Your task to perform on an android device: Show me productivity apps on the Play Store Image 0: 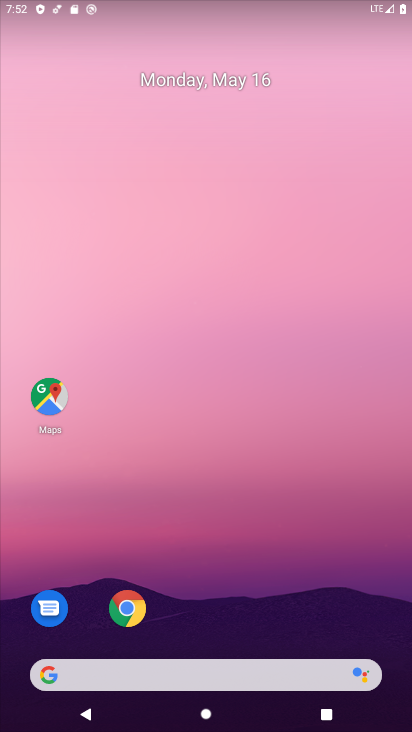
Step 0: drag from (232, 571) to (203, 78)
Your task to perform on an android device: Show me productivity apps on the Play Store Image 1: 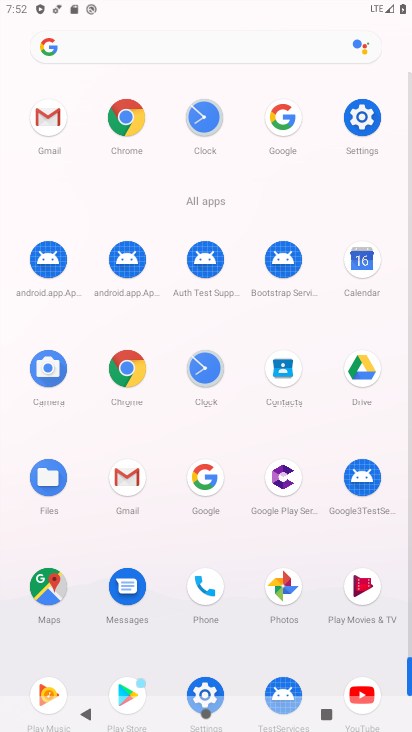
Step 1: drag from (175, 482) to (168, 292)
Your task to perform on an android device: Show me productivity apps on the Play Store Image 2: 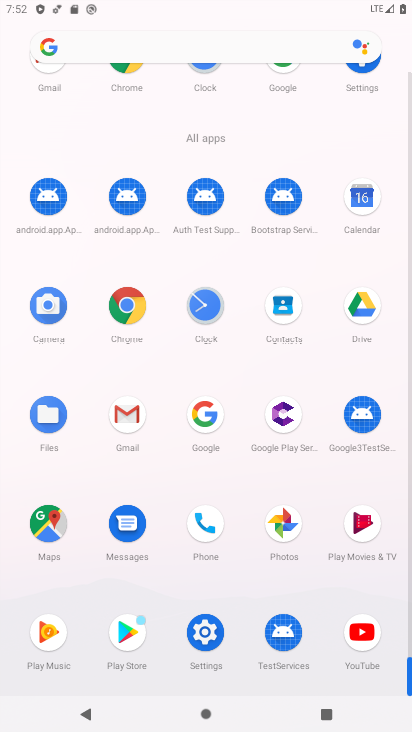
Step 2: click (131, 634)
Your task to perform on an android device: Show me productivity apps on the Play Store Image 3: 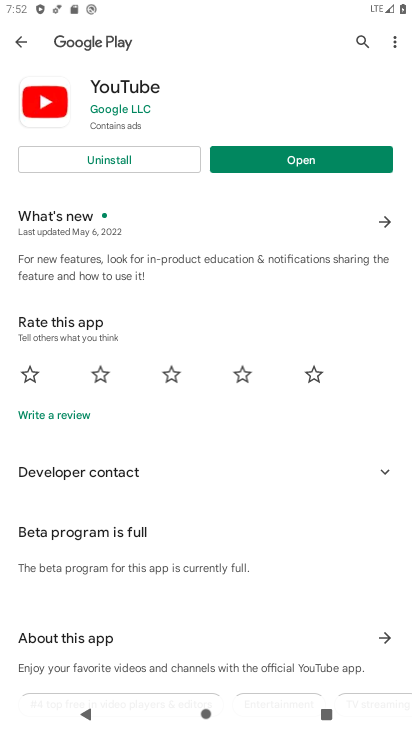
Step 3: press back button
Your task to perform on an android device: Show me productivity apps on the Play Store Image 4: 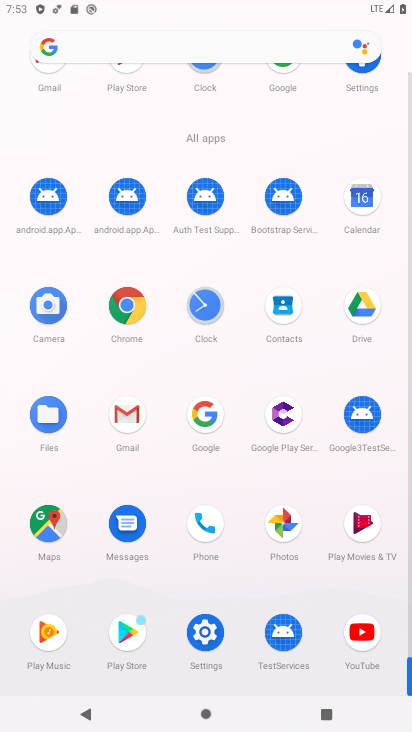
Step 4: click (129, 635)
Your task to perform on an android device: Show me productivity apps on the Play Store Image 5: 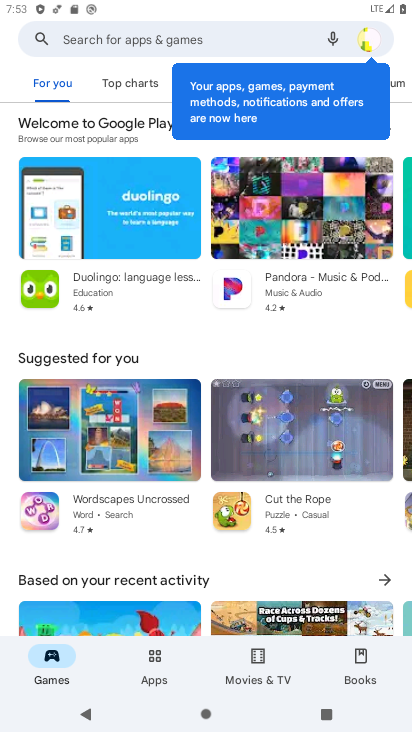
Step 5: click (162, 651)
Your task to perform on an android device: Show me productivity apps on the Play Store Image 6: 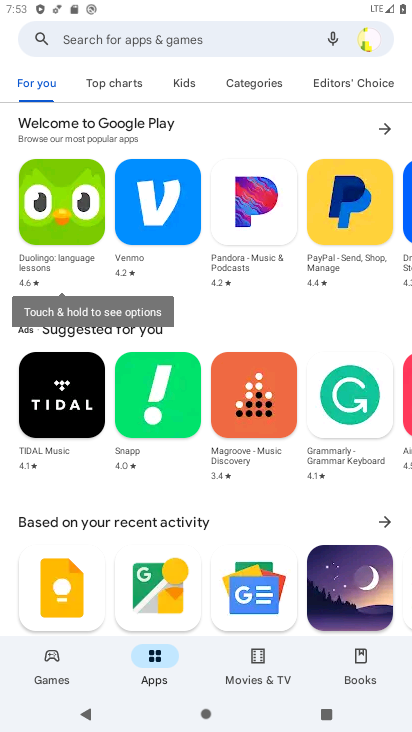
Step 6: click (265, 83)
Your task to perform on an android device: Show me productivity apps on the Play Store Image 7: 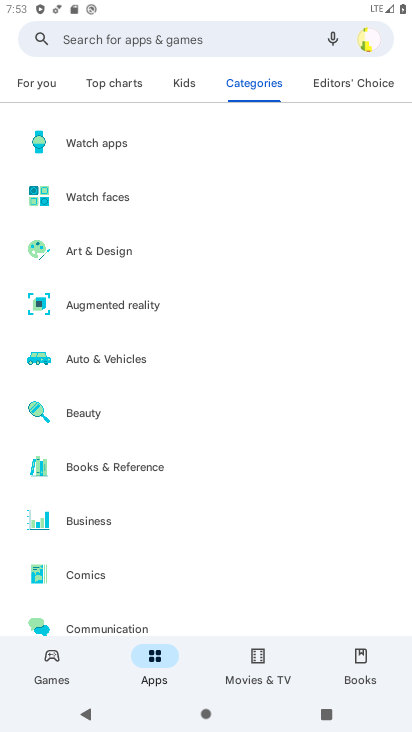
Step 7: drag from (118, 400) to (139, 317)
Your task to perform on an android device: Show me productivity apps on the Play Store Image 8: 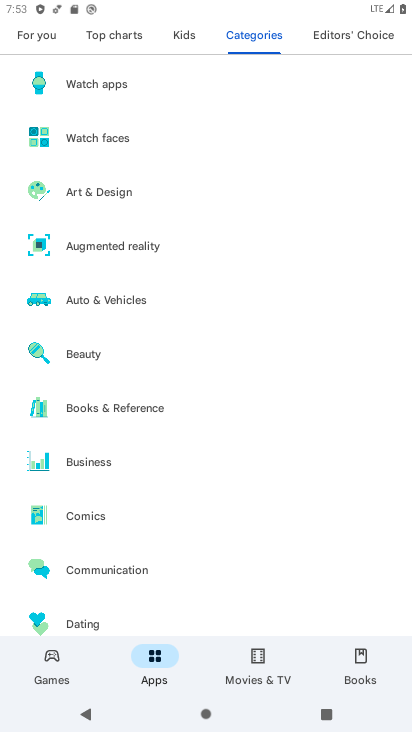
Step 8: drag from (111, 441) to (135, 352)
Your task to perform on an android device: Show me productivity apps on the Play Store Image 9: 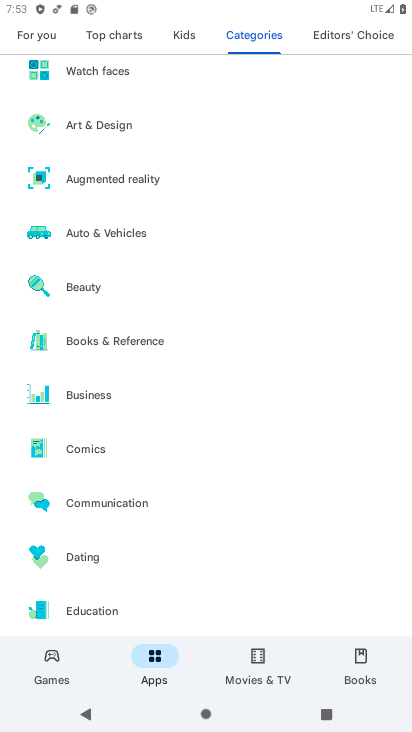
Step 9: drag from (89, 430) to (129, 361)
Your task to perform on an android device: Show me productivity apps on the Play Store Image 10: 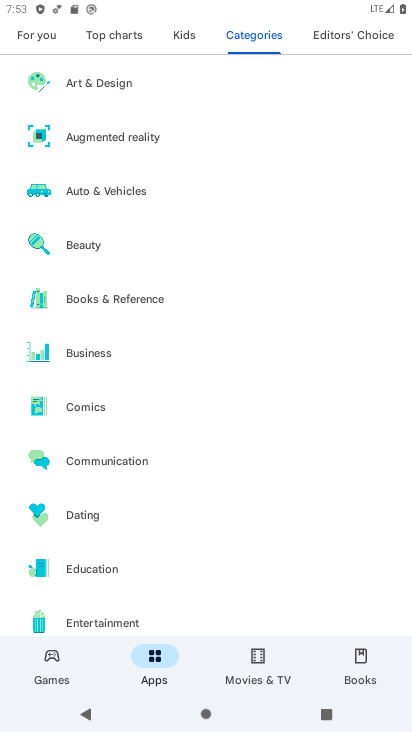
Step 10: drag from (88, 444) to (148, 353)
Your task to perform on an android device: Show me productivity apps on the Play Store Image 11: 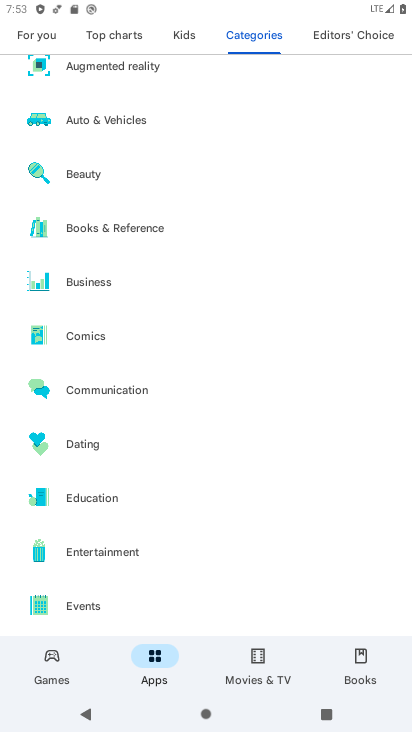
Step 11: drag from (79, 459) to (143, 375)
Your task to perform on an android device: Show me productivity apps on the Play Store Image 12: 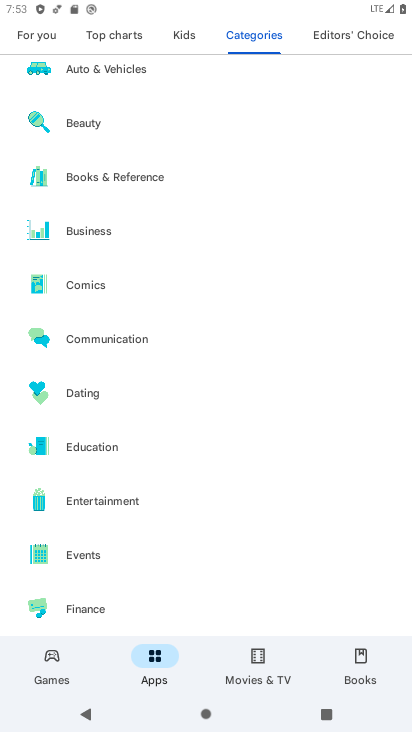
Step 12: drag from (81, 470) to (148, 381)
Your task to perform on an android device: Show me productivity apps on the Play Store Image 13: 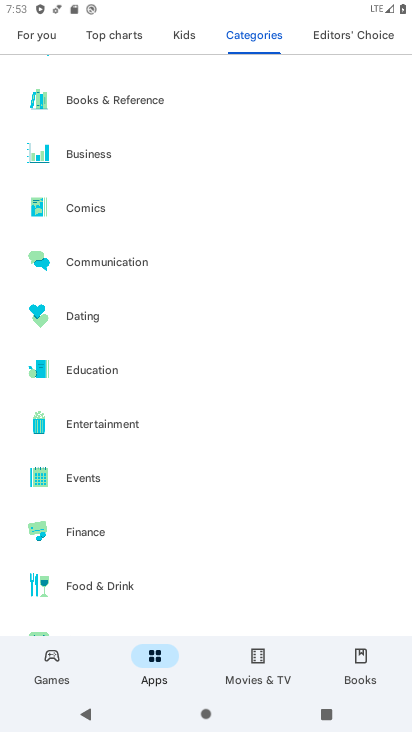
Step 13: drag from (80, 453) to (110, 377)
Your task to perform on an android device: Show me productivity apps on the Play Store Image 14: 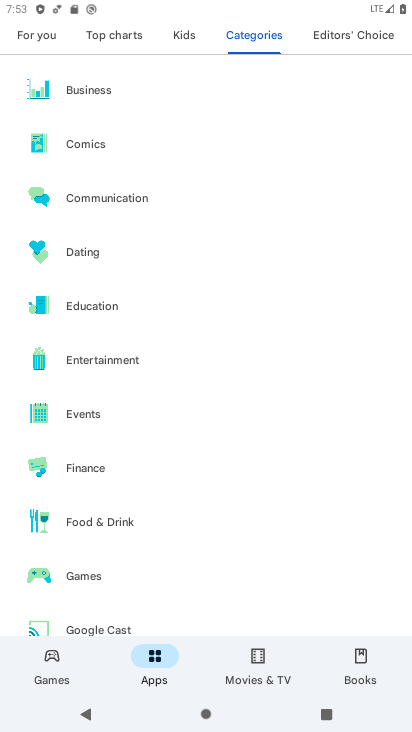
Step 14: drag from (69, 430) to (80, 364)
Your task to perform on an android device: Show me productivity apps on the Play Store Image 15: 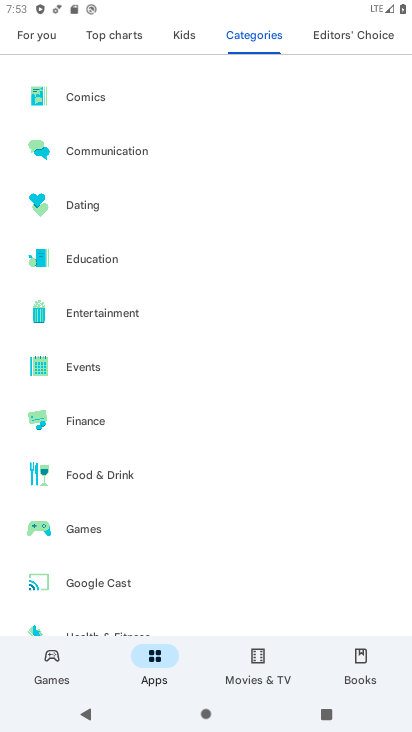
Step 15: drag from (75, 445) to (106, 369)
Your task to perform on an android device: Show me productivity apps on the Play Store Image 16: 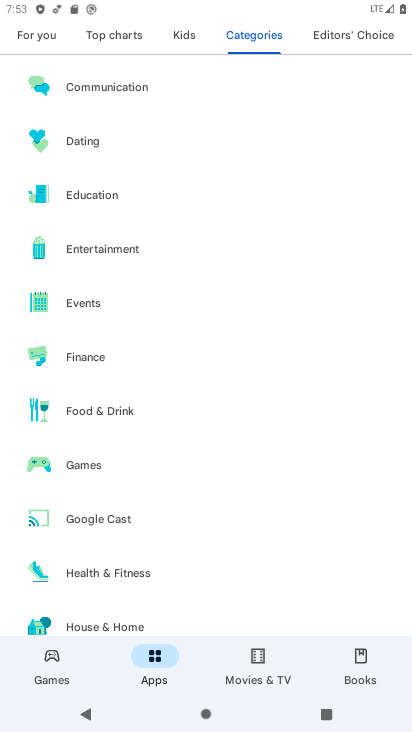
Step 16: drag from (73, 440) to (113, 365)
Your task to perform on an android device: Show me productivity apps on the Play Store Image 17: 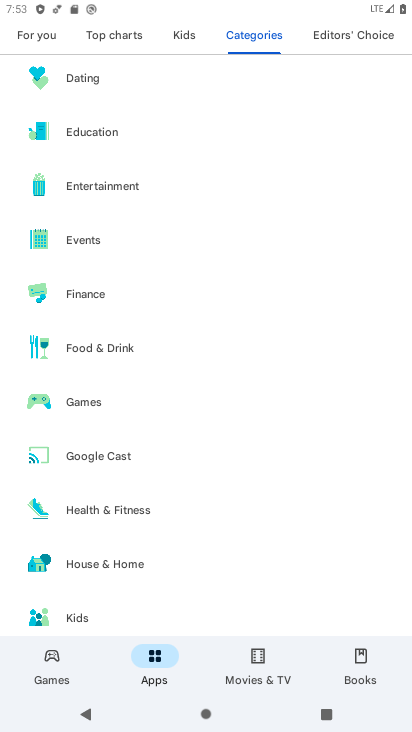
Step 17: drag from (81, 476) to (125, 404)
Your task to perform on an android device: Show me productivity apps on the Play Store Image 18: 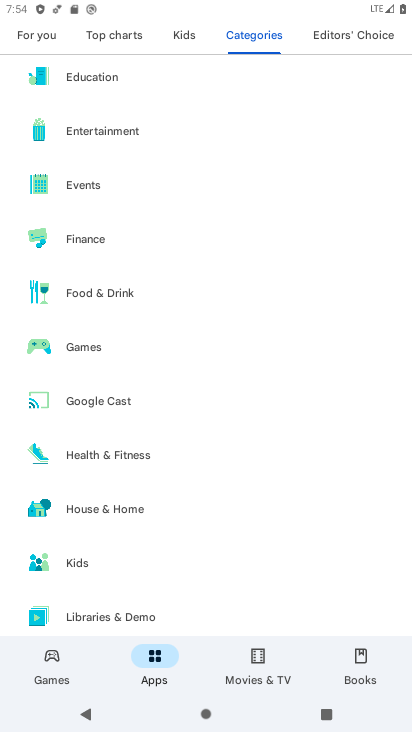
Step 18: drag from (114, 536) to (173, 441)
Your task to perform on an android device: Show me productivity apps on the Play Store Image 19: 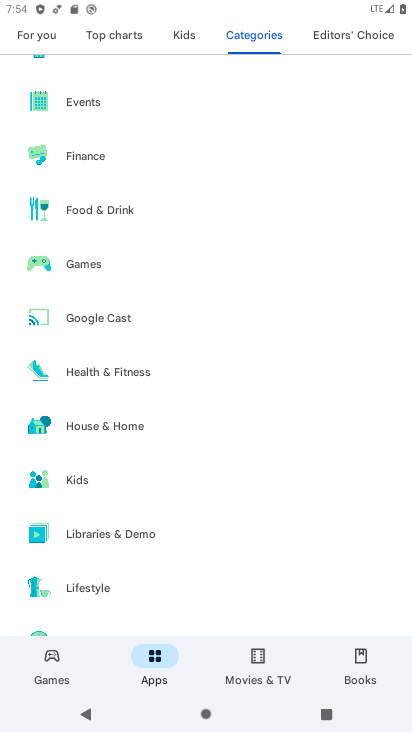
Step 19: drag from (93, 495) to (125, 438)
Your task to perform on an android device: Show me productivity apps on the Play Store Image 20: 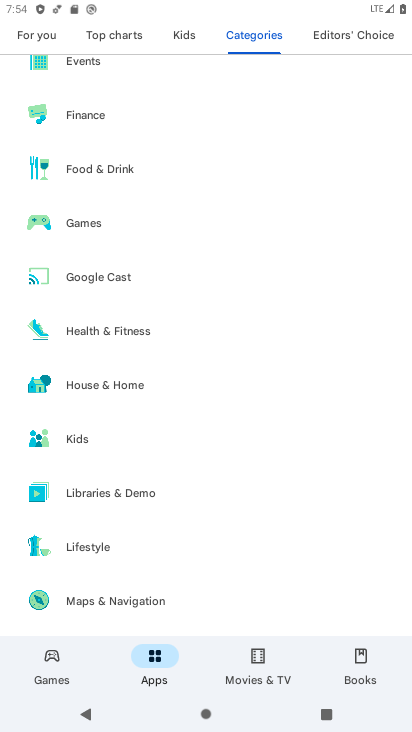
Step 20: drag from (84, 471) to (134, 391)
Your task to perform on an android device: Show me productivity apps on the Play Store Image 21: 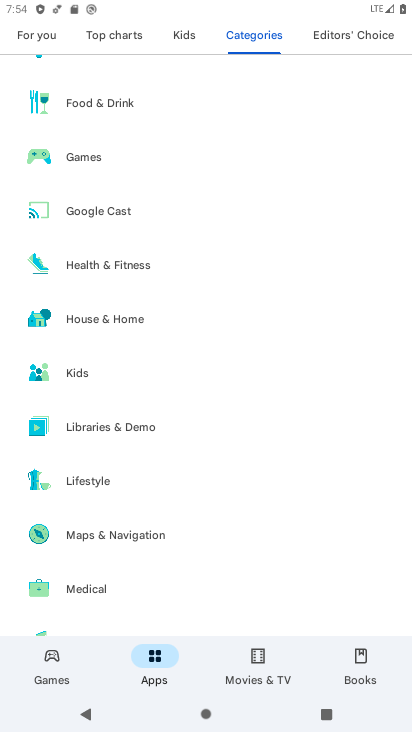
Step 21: drag from (85, 456) to (115, 399)
Your task to perform on an android device: Show me productivity apps on the Play Store Image 22: 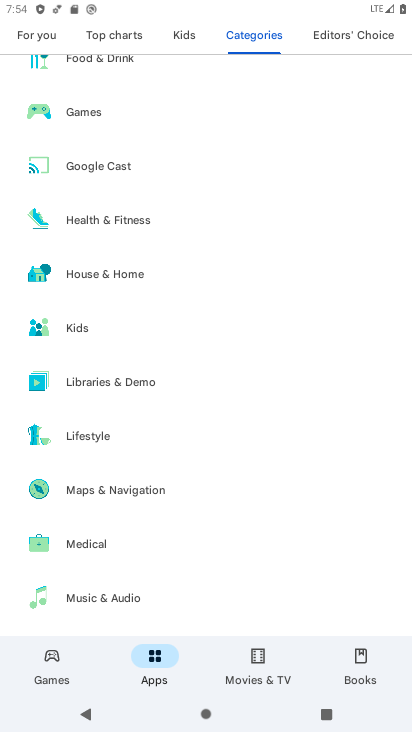
Step 22: drag from (81, 459) to (121, 391)
Your task to perform on an android device: Show me productivity apps on the Play Store Image 23: 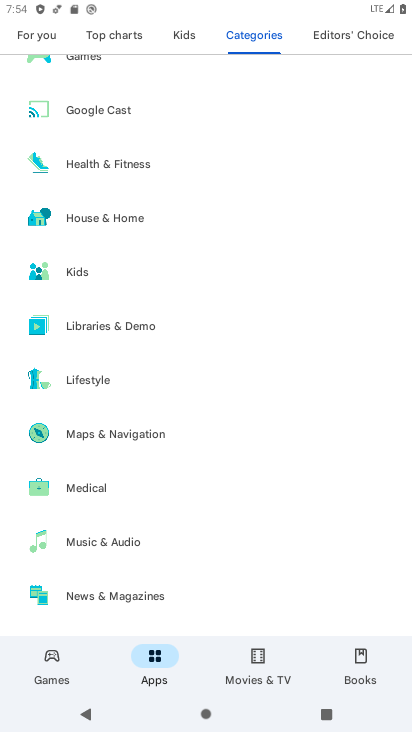
Step 23: drag from (64, 456) to (82, 395)
Your task to perform on an android device: Show me productivity apps on the Play Store Image 24: 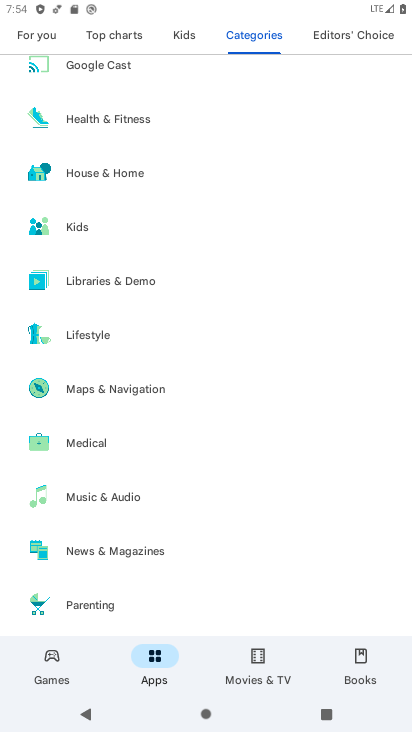
Step 24: drag from (58, 421) to (87, 363)
Your task to perform on an android device: Show me productivity apps on the Play Store Image 25: 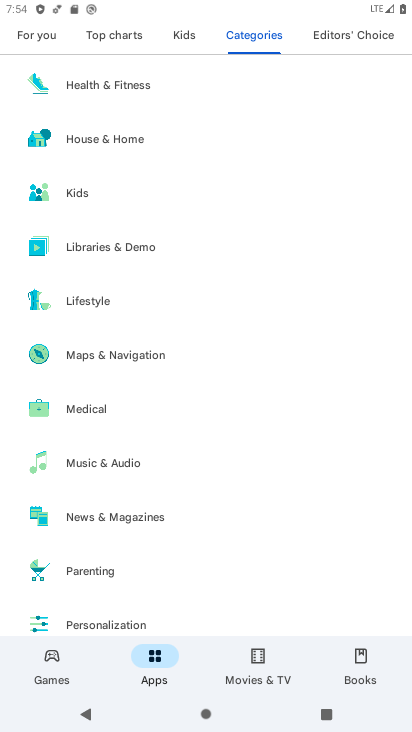
Step 25: drag from (70, 440) to (96, 379)
Your task to perform on an android device: Show me productivity apps on the Play Store Image 26: 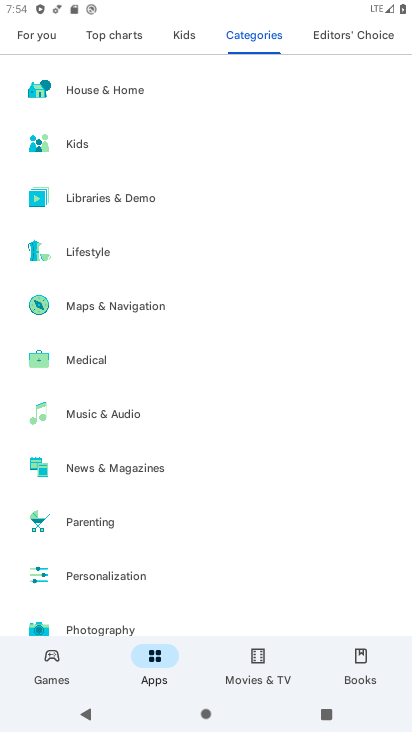
Step 26: drag from (55, 447) to (84, 381)
Your task to perform on an android device: Show me productivity apps on the Play Store Image 27: 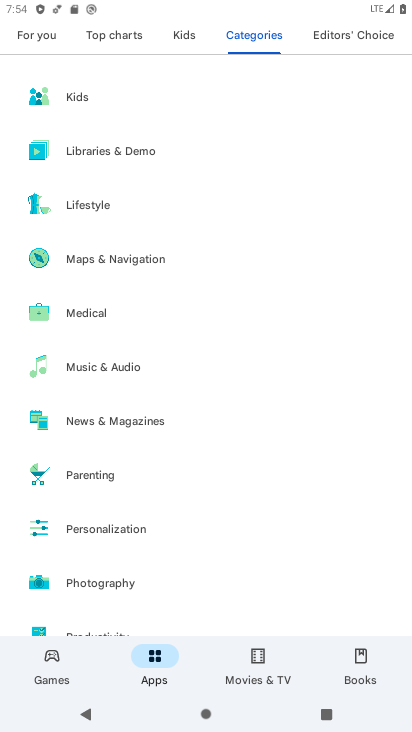
Step 27: drag from (58, 446) to (112, 346)
Your task to perform on an android device: Show me productivity apps on the Play Store Image 28: 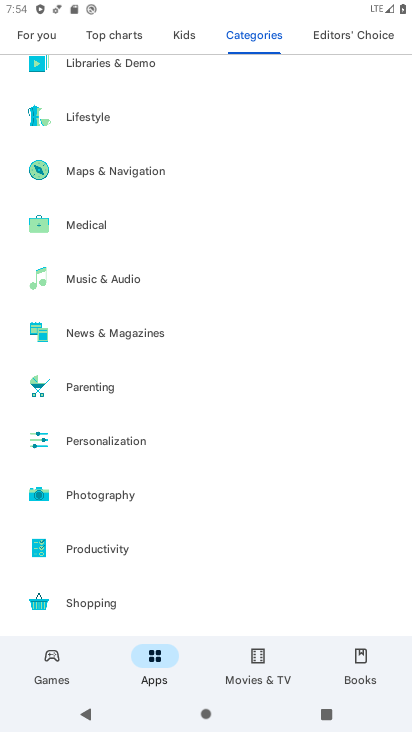
Step 28: drag from (46, 418) to (91, 345)
Your task to perform on an android device: Show me productivity apps on the Play Store Image 29: 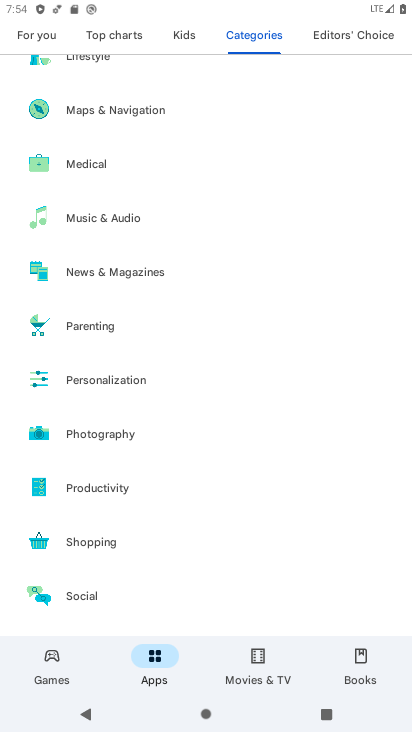
Step 29: click (76, 492)
Your task to perform on an android device: Show me productivity apps on the Play Store Image 30: 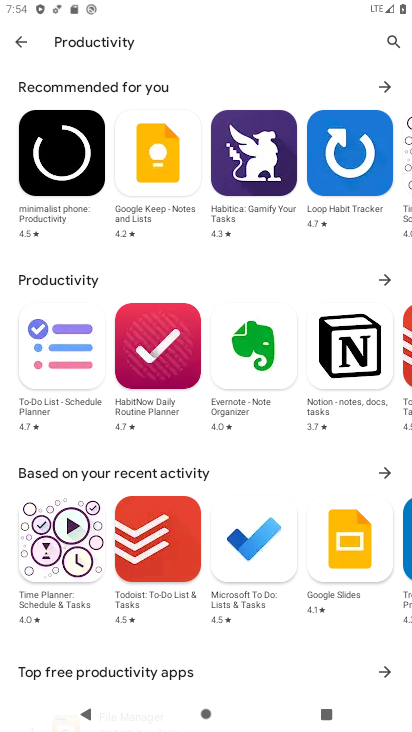
Step 30: task complete